Your task to perform on an android device: create a new album in the google photos Image 0: 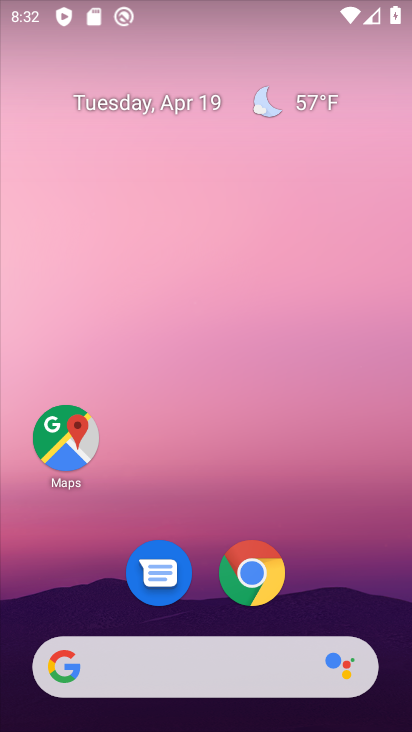
Step 0: drag from (292, 295) to (291, 195)
Your task to perform on an android device: create a new album in the google photos Image 1: 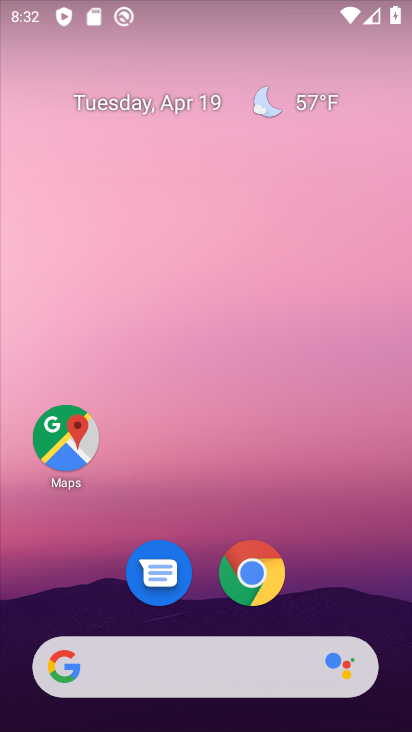
Step 1: drag from (340, 181) to (334, 59)
Your task to perform on an android device: create a new album in the google photos Image 2: 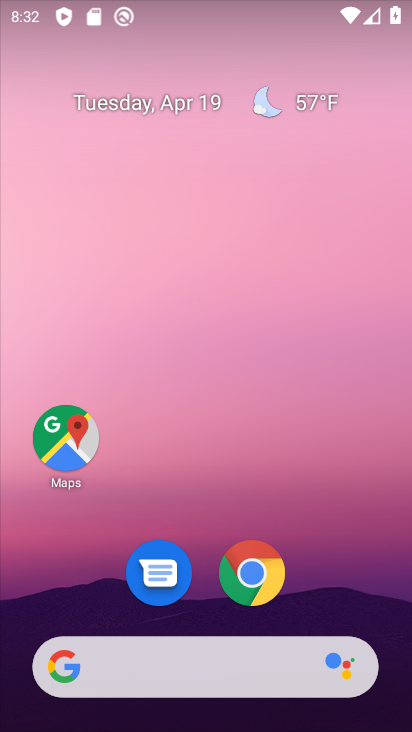
Step 2: drag from (322, 399) to (273, 38)
Your task to perform on an android device: create a new album in the google photos Image 3: 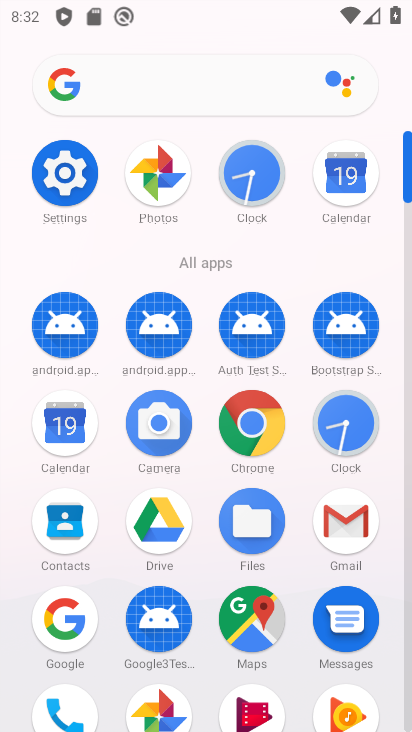
Step 3: click (164, 694)
Your task to perform on an android device: create a new album in the google photos Image 4: 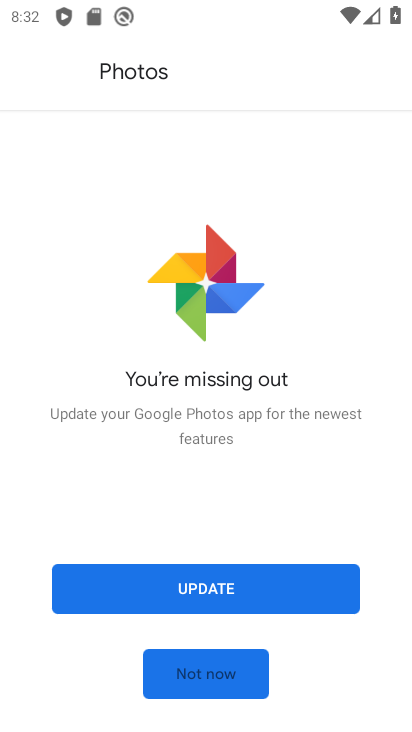
Step 4: click (207, 579)
Your task to perform on an android device: create a new album in the google photos Image 5: 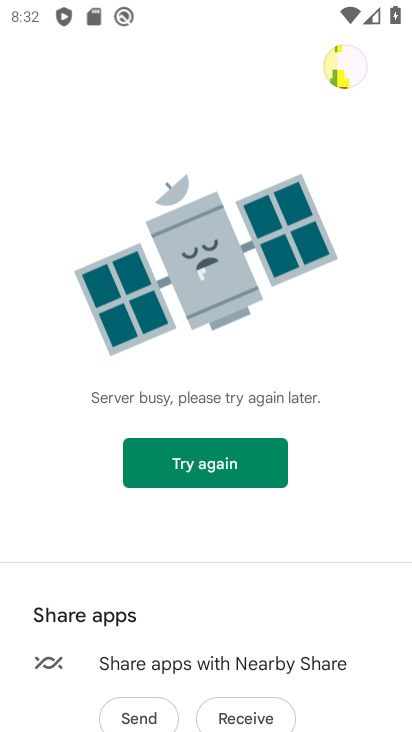
Step 5: click (251, 472)
Your task to perform on an android device: create a new album in the google photos Image 6: 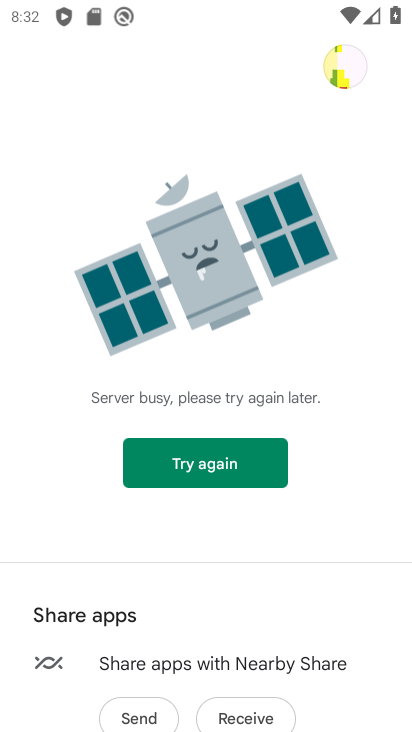
Step 6: press back button
Your task to perform on an android device: create a new album in the google photos Image 7: 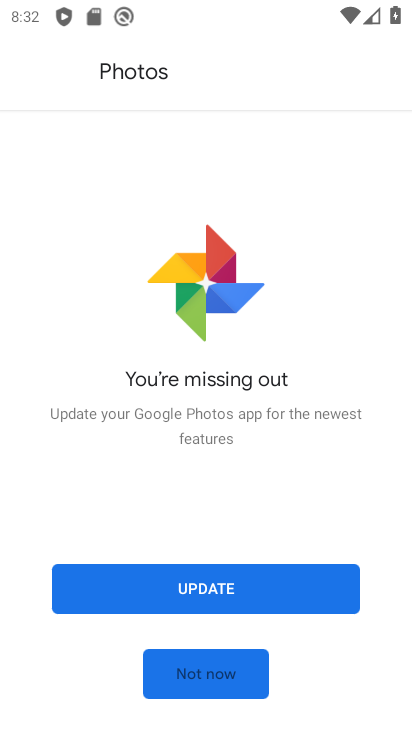
Step 7: click (215, 680)
Your task to perform on an android device: create a new album in the google photos Image 8: 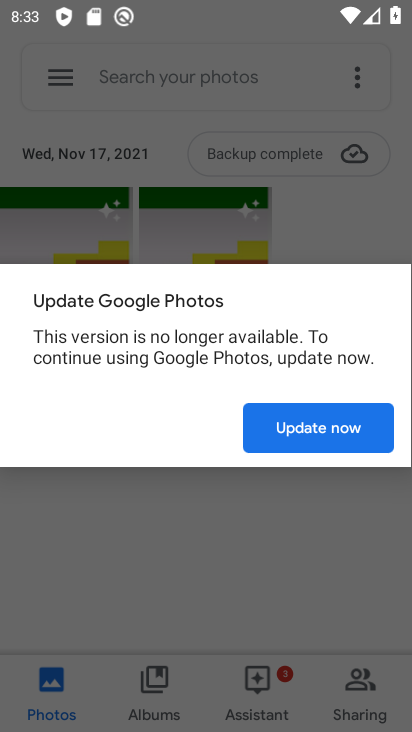
Step 8: click (282, 516)
Your task to perform on an android device: create a new album in the google photos Image 9: 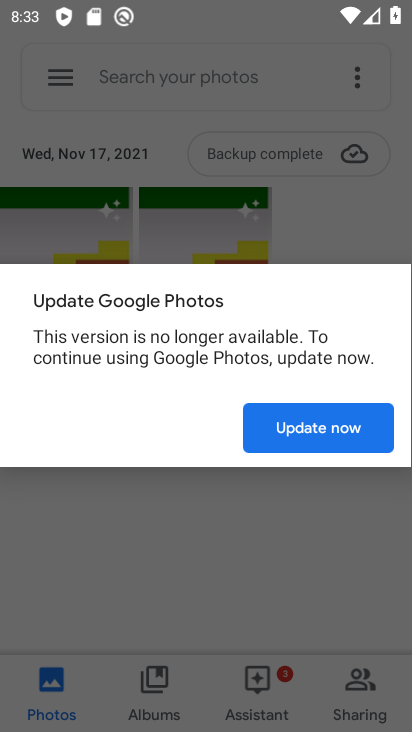
Step 9: click (282, 516)
Your task to perform on an android device: create a new album in the google photos Image 10: 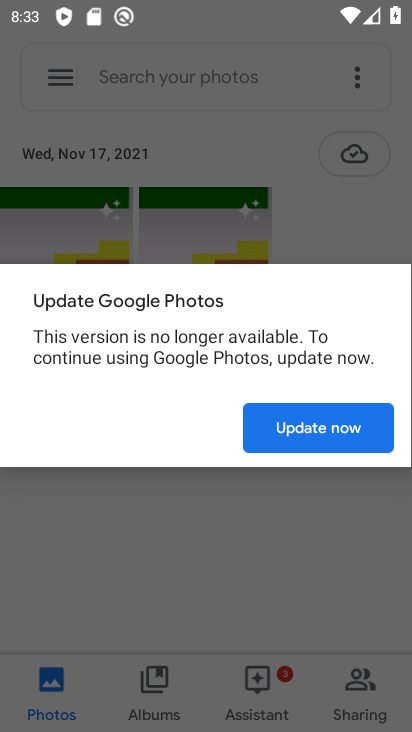
Step 10: click (307, 432)
Your task to perform on an android device: create a new album in the google photos Image 11: 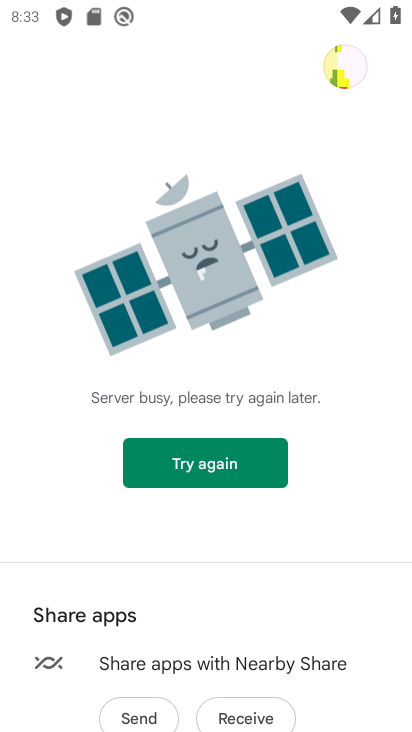
Step 11: press back button
Your task to perform on an android device: create a new album in the google photos Image 12: 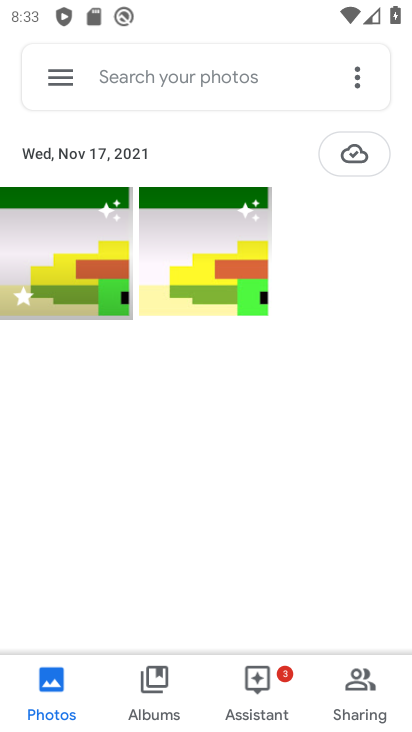
Step 12: click (355, 69)
Your task to perform on an android device: create a new album in the google photos Image 13: 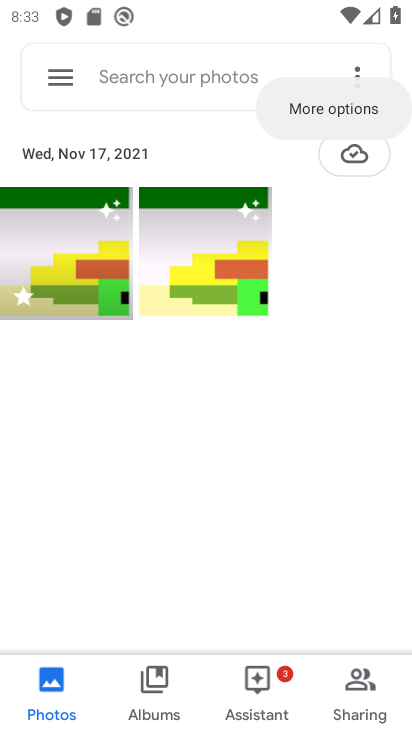
Step 13: click (359, 76)
Your task to perform on an android device: create a new album in the google photos Image 14: 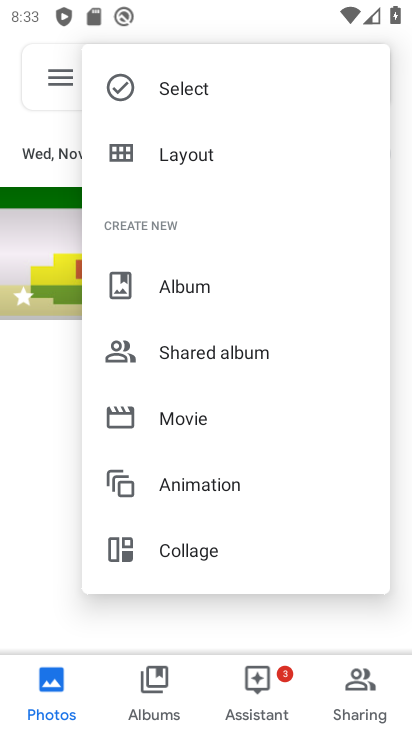
Step 14: click (181, 287)
Your task to perform on an android device: create a new album in the google photos Image 15: 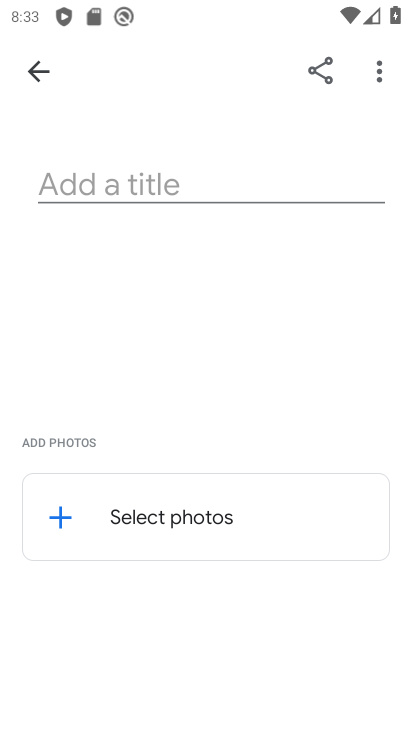
Step 15: click (184, 184)
Your task to perform on an android device: create a new album in the google photos Image 16: 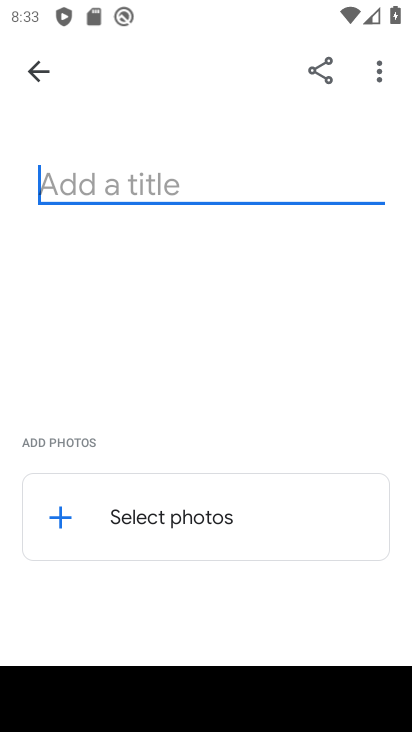
Step 16: type "pokjhg"
Your task to perform on an android device: create a new album in the google photos Image 17: 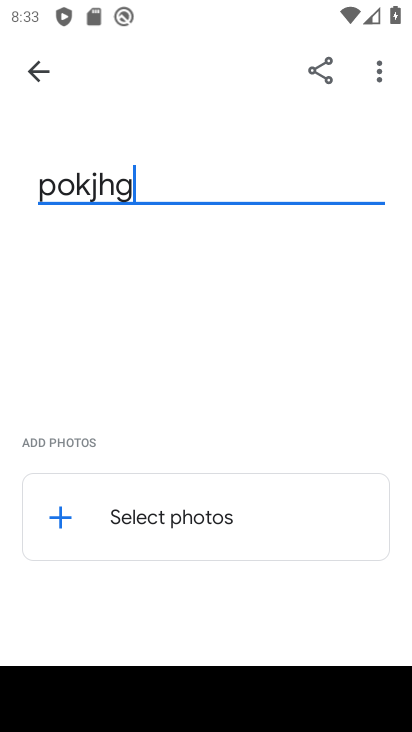
Step 17: click (195, 525)
Your task to perform on an android device: create a new album in the google photos Image 18: 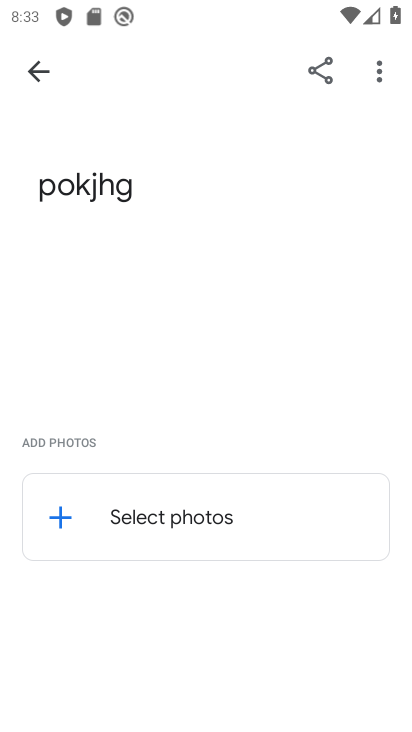
Step 18: click (73, 513)
Your task to perform on an android device: create a new album in the google photos Image 19: 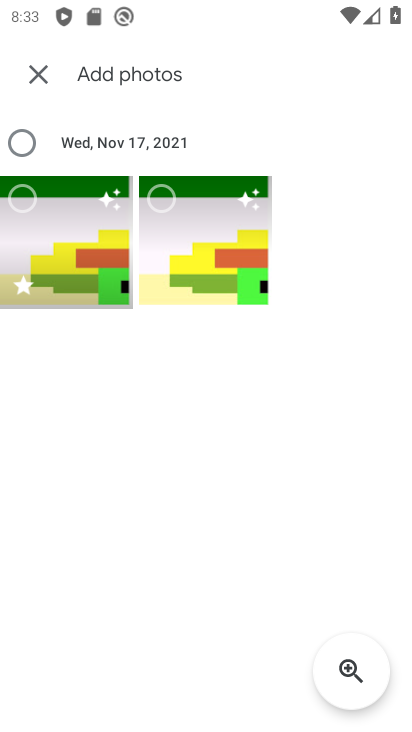
Step 19: click (25, 200)
Your task to perform on an android device: create a new album in the google photos Image 20: 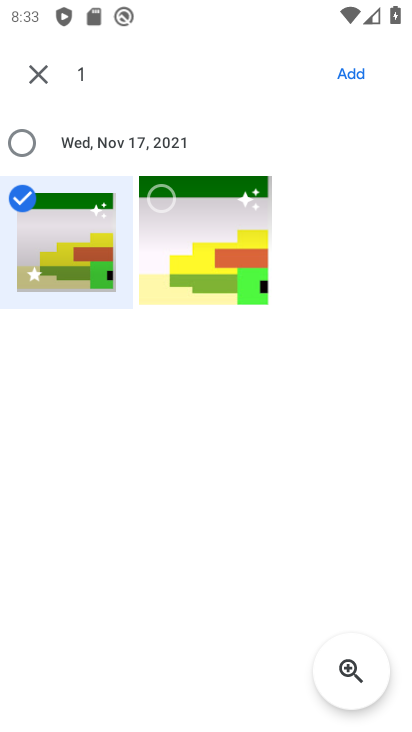
Step 20: click (166, 199)
Your task to perform on an android device: create a new album in the google photos Image 21: 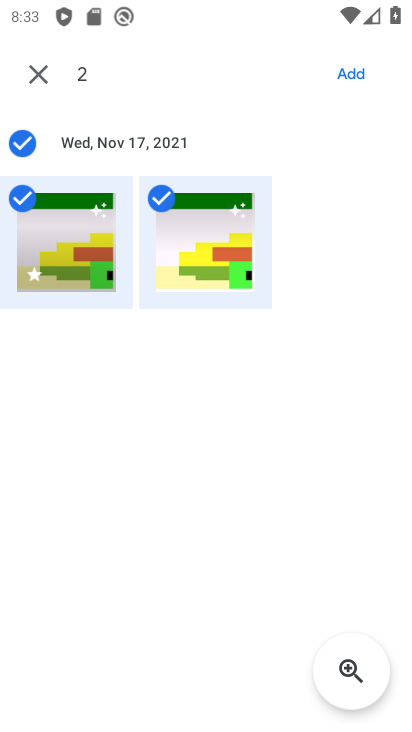
Step 21: click (351, 69)
Your task to perform on an android device: create a new album in the google photos Image 22: 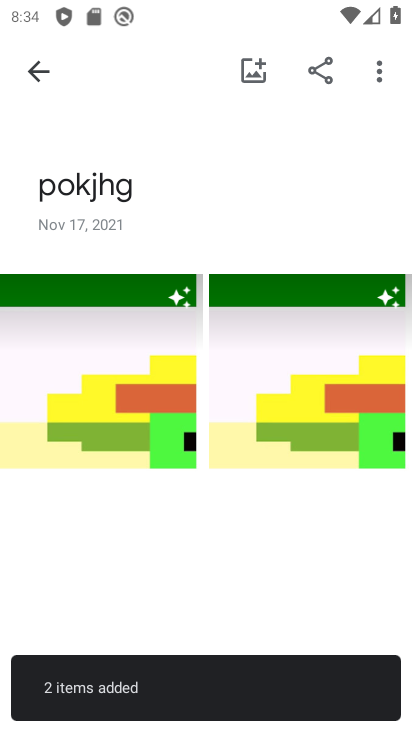
Step 22: task complete